Your task to perform on an android device: set the timer Image 0: 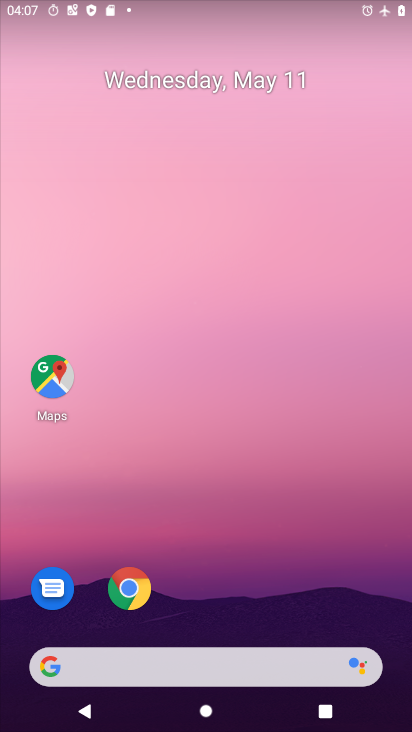
Step 0: drag from (196, 603) to (224, 302)
Your task to perform on an android device: set the timer Image 1: 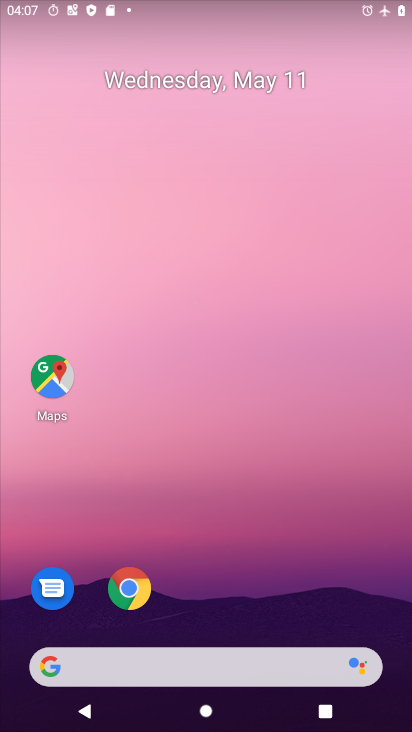
Step 1: drag from (225, 624) to (222, 181)
Your task to perform on an android device: set the timer Image 2: 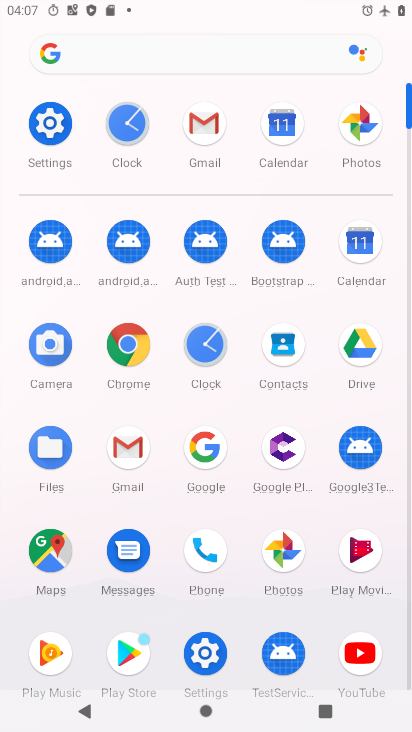
Step 2: click (137, 121)
Your task to perform on an android device: set the timer Image 3: 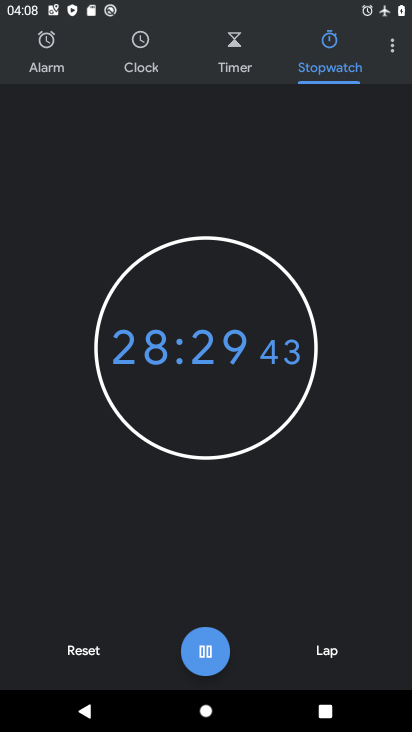
Step 3: task complete